Your task to perform on an android device: delete location history Image 0: 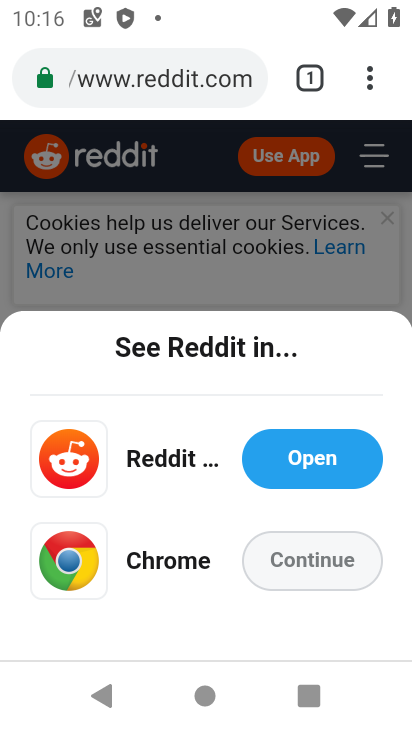
Step 0: press home button
Your task to perform on an android device: delete location history Image 1: 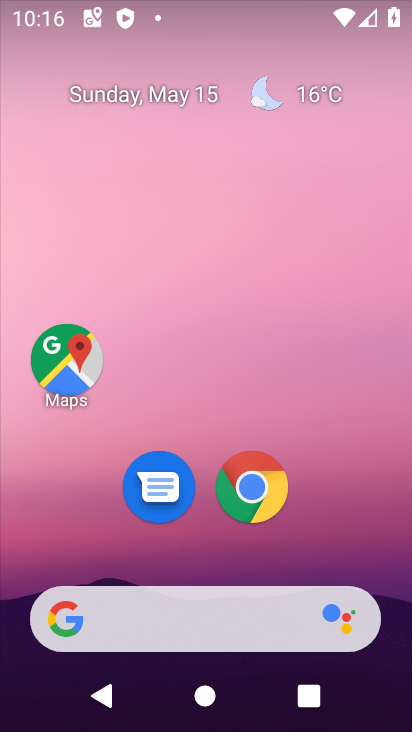
Step 1: click (66, 354)
Your task to perform on an android device: delete location history Image 2: 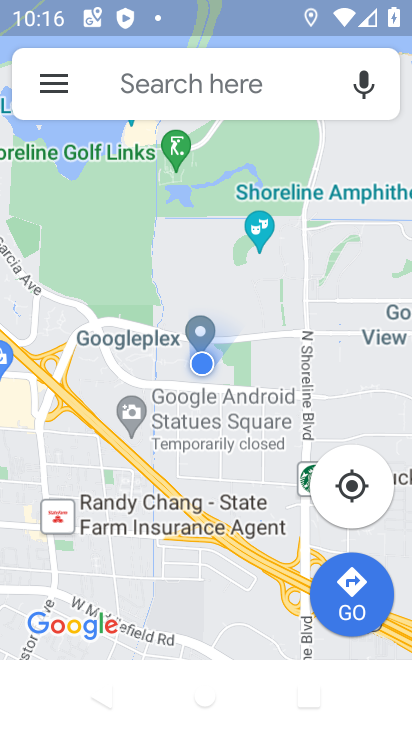
Step 2: click (51, 84)
Your task to perform on an android device: delete location history Image 3: 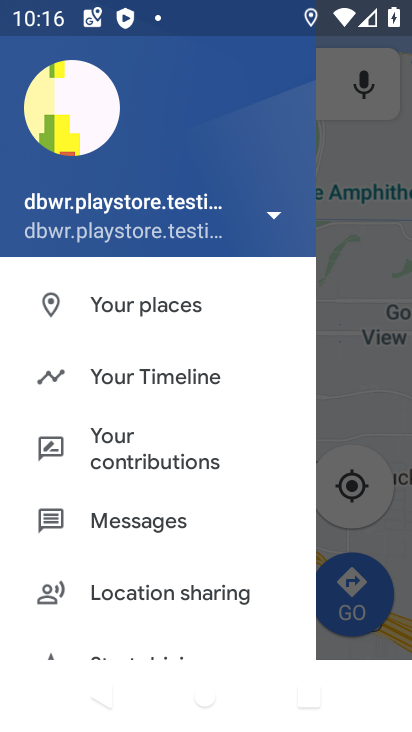
Step 3: drag from (284, 598) to (194, 40)
Your task to perform on an android device: delete location history Image 4: 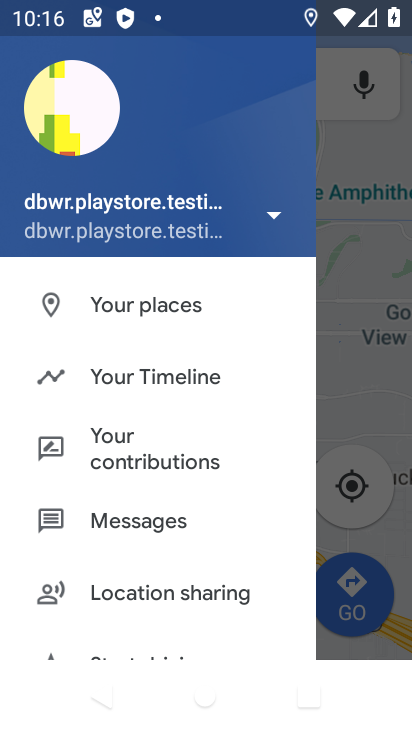
Step 4: drag from (235, 589) to (252, 90)
Your task to perform on an android device: delete location history Image 5: 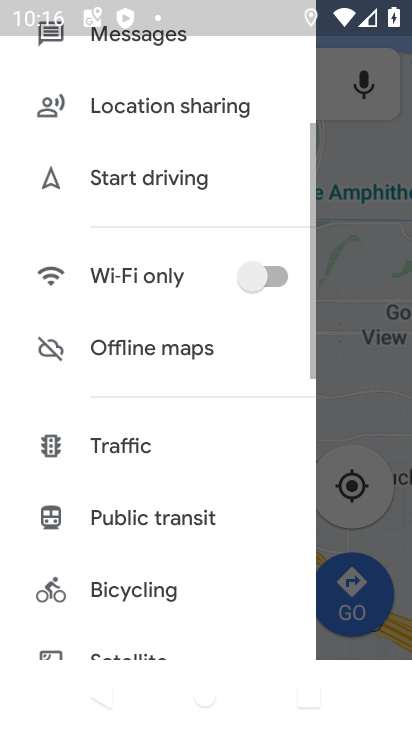
Step 5: drag from (231, 639) to (232, 180)
Your task to perform on an android device: delete location history Image 6: 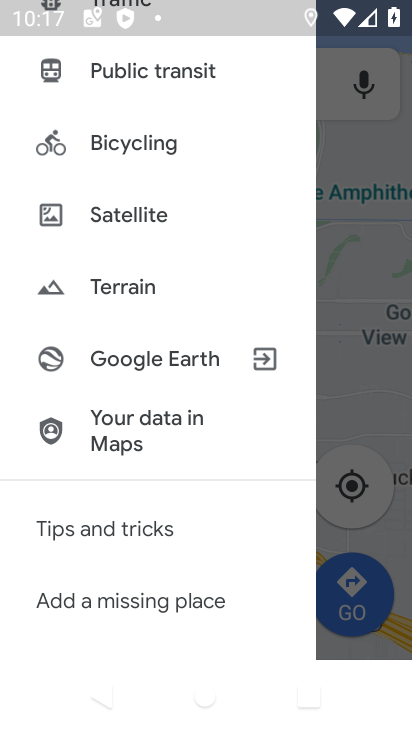
Step 6: drag from (180, 626) to (224, 265)
Your task to perform on an android device: delete location history Image 7: 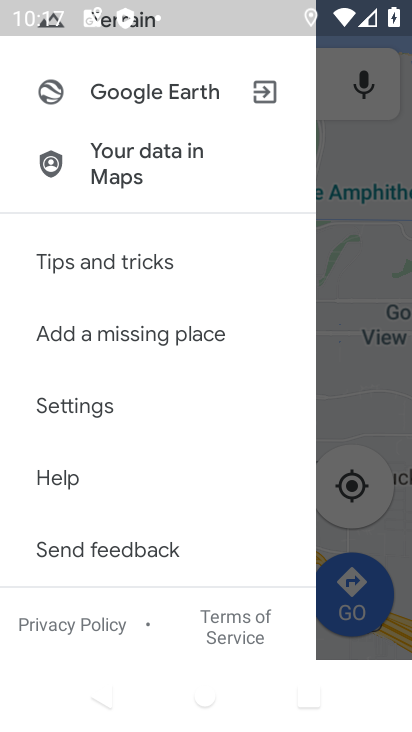
Step 7: click (79, 405)
Your task to perform on an android device: delete location history Image 8: 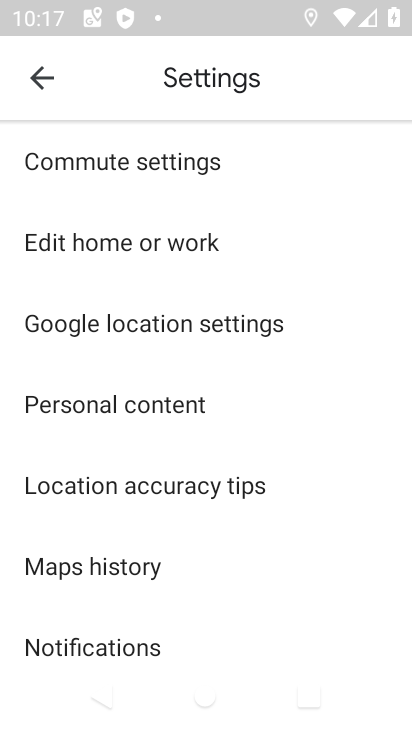
Step 8: click (79, 405)
Your task to perform on an android device: delete location history Image 9: 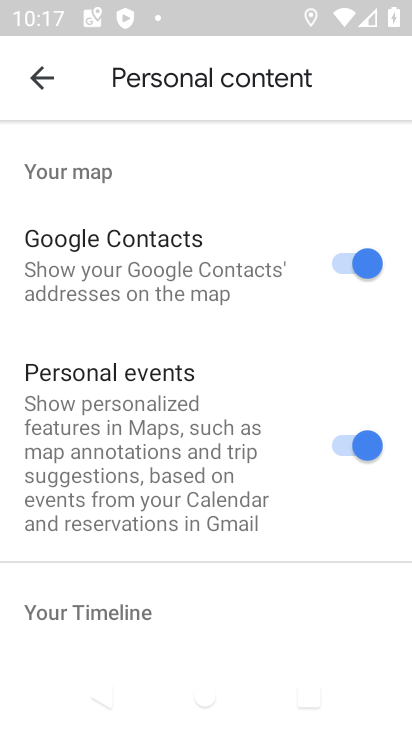
Step 9: drag from (268, 608) to (268, 155)
Your task to perform on an android device: delete location history Image 10: 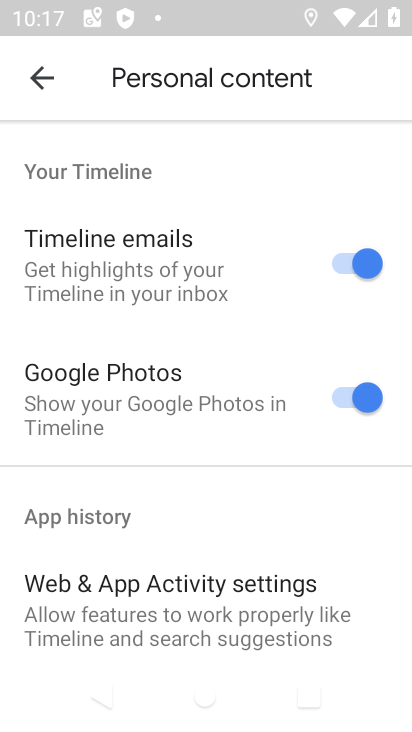
Step 10: drag from (270, 592) to (276, 144)
Your task to perform on an android device: delete location history Image 11: 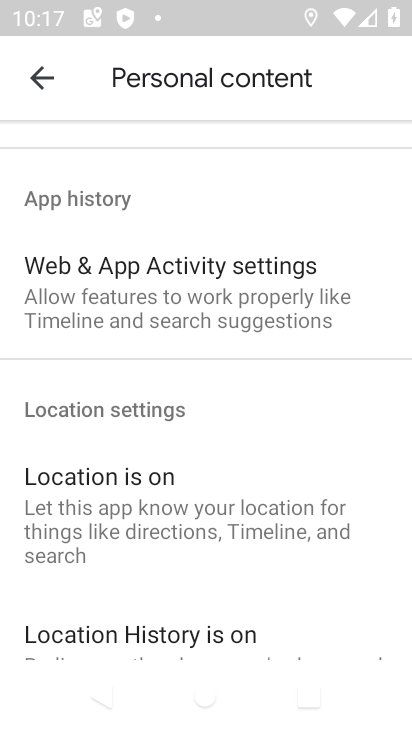
Step 11: drag from (217, 566) to (307, 171)
Your task to perform on an android device: delete location history Image 12: 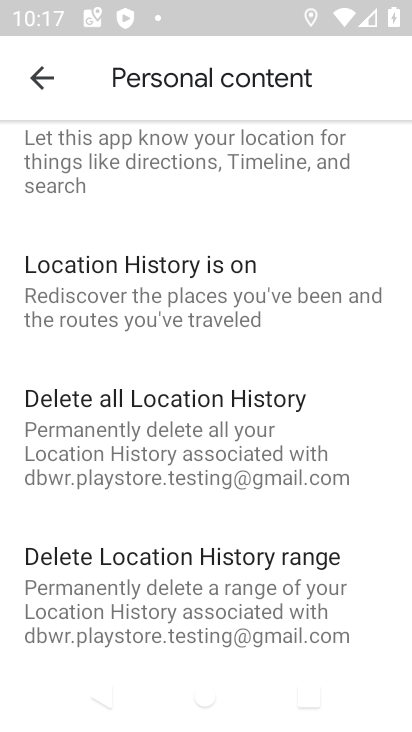
Step 12: click (93, 417)
Your task to perform on an android device: delete location history Image 13: 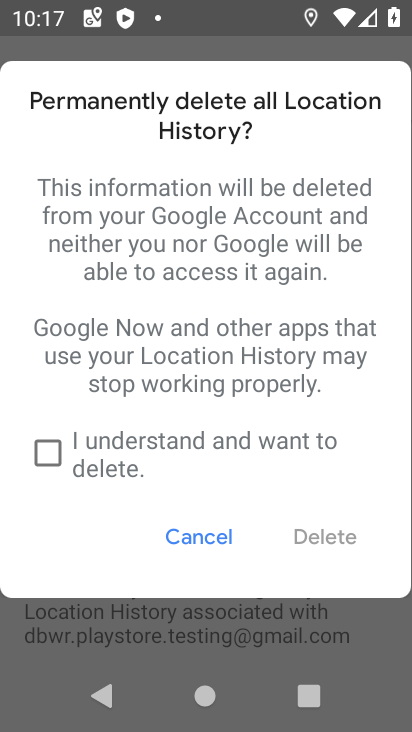
Step 13: click (47, 466)
Your task to perform on an android device: delete location history Image 14: 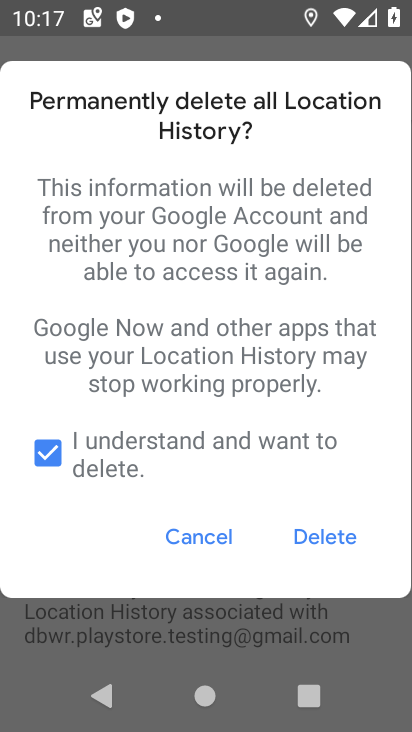
Step 14: click (335, 535)
Your task to perform on an android device: delete location history Image 15: 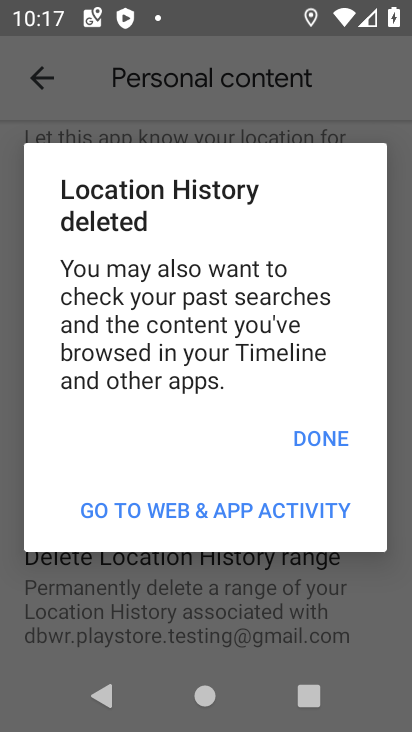
Step 15: click (331, 425)
Your task to perform on an android device: delete location history Image 16: 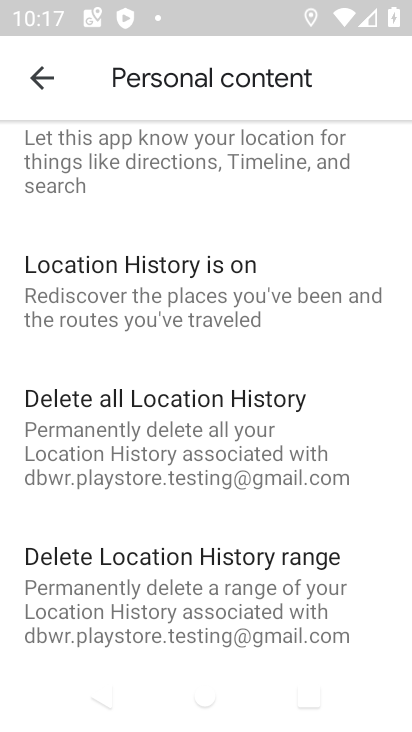
Step 16: task complete